Your task to perform on an android device: change text size in settings app Image 0: 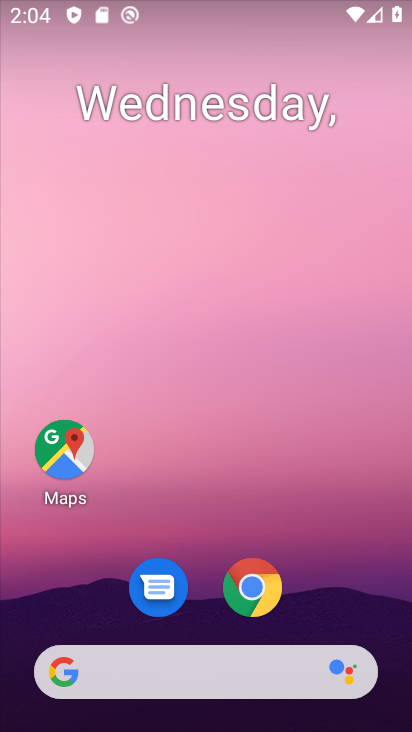
Step 0: drag from (242, 577) to (247, 10)
Your task to perform on an android device: change text size in settings app Image 1: 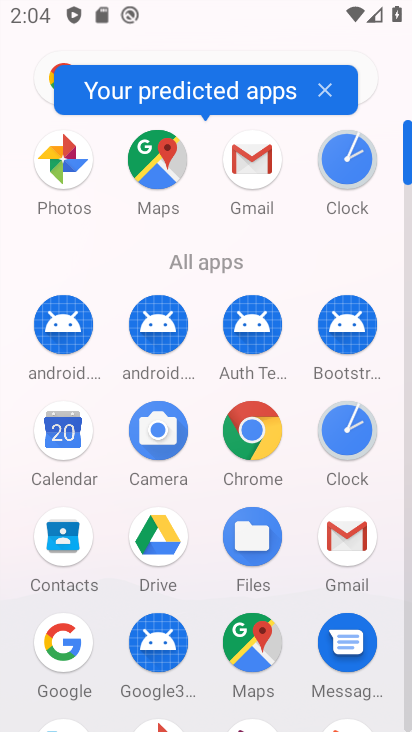
Step 1: drag from (268, 375) to (301, 22)
Your task to perform on an android device: change text size in settings app Image 2: 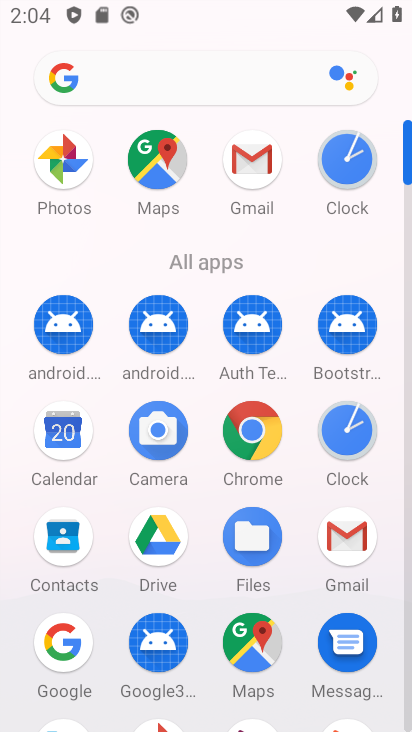
Step 2: drag from (283, 604) to (318, 60)
Your task to perform on an android device: change text size in settings app Image 3: 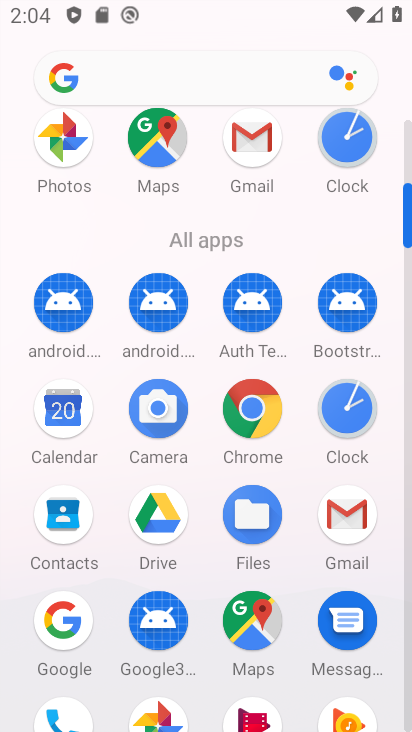
Step 3: drag from (302, 558) to (299, 5)
Your task to perform on an android device: change text size in settings app Image 4: 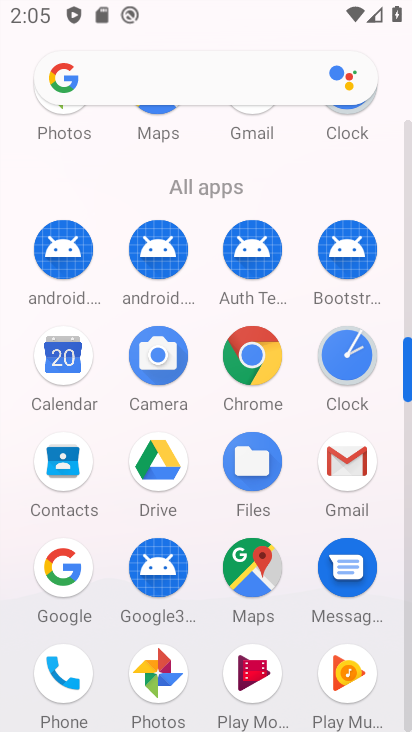
Step 4: drag from (304, 546) to (310, 32)
Your task to perform on an android device: change text size in settings app Image 5: 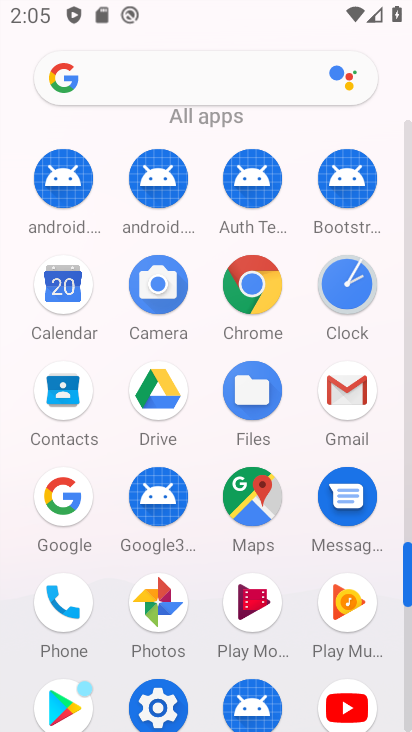
Step 5: click (158, 693)
Your task to perform on an android device: change text size in settings app Image 6: 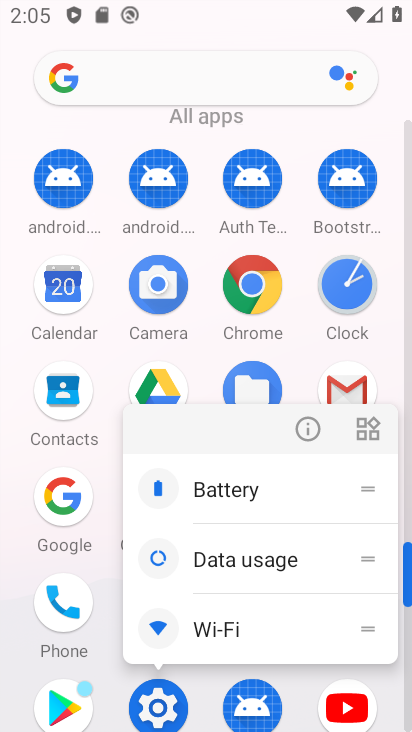
Step 6: click (158, 693)
Your task to perform on an android device: change text size in settings app Image 7: 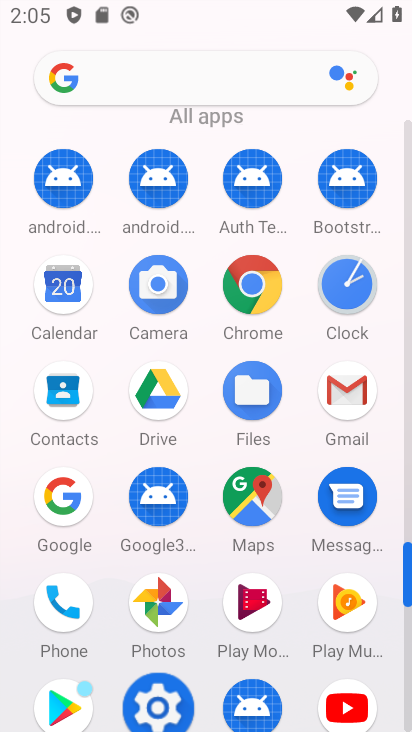
Step 7: click (158, 693)
Your task to perform on an android device: change text size in settings app Image 8: 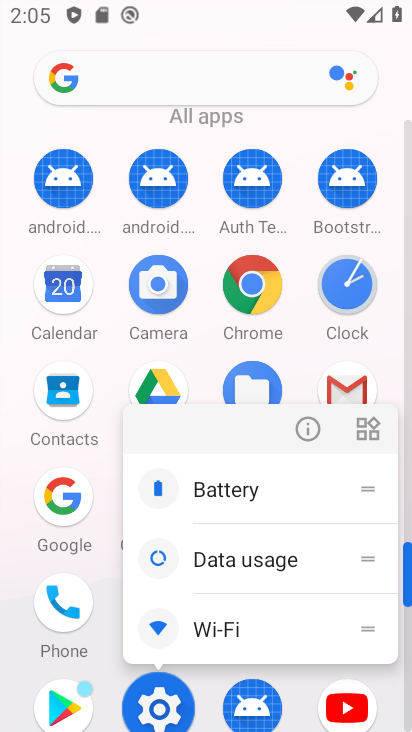
Step 8: click (158, 693)
Your task to perform on an android device: change text size in settings app Image 9: 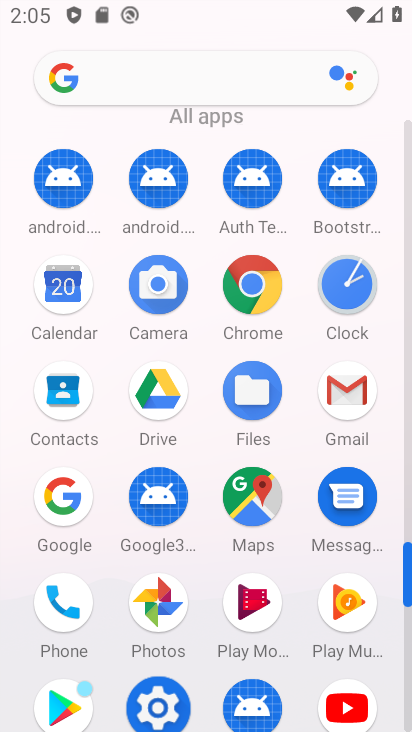
Step 9: click (158, 693)
Your task to perform on an android device: change text size in settings app Image 10: 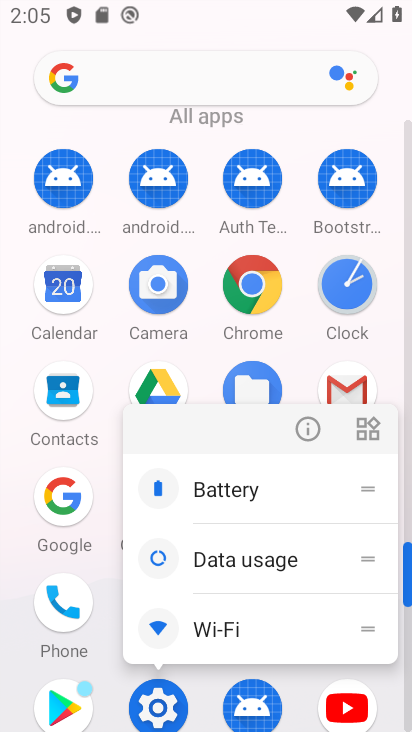
Step 10: click (158, 693)
Your task to perform on an android device: change text size in settings app Image 11: 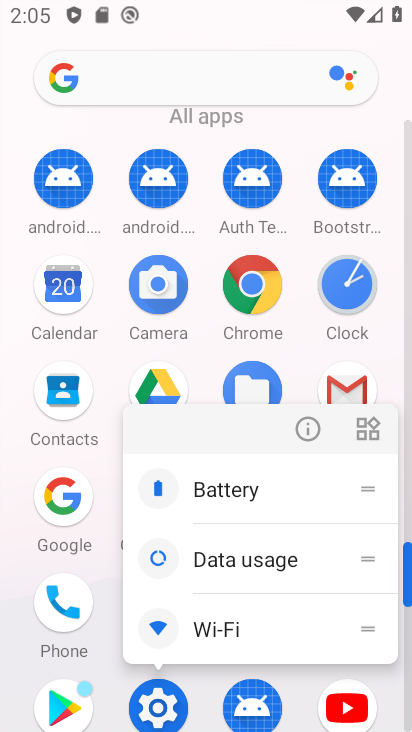
Step 11: click (158, 693)
Your task to perform on an android device: change text size in settings app Image 12: 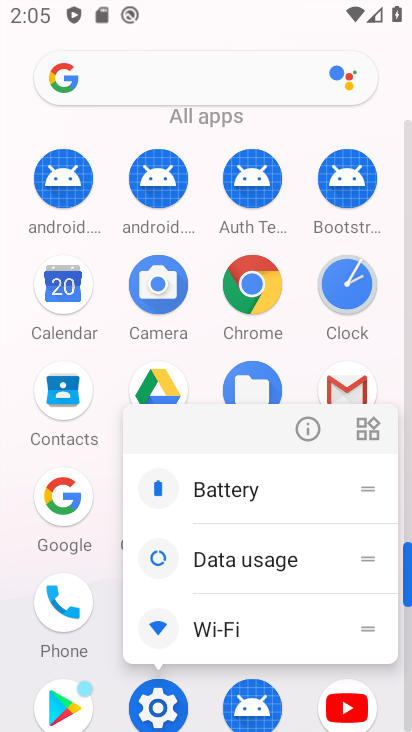
Step 12: click (158, 693)
Your task to perform on an android device: change text size in settings app Image 13: 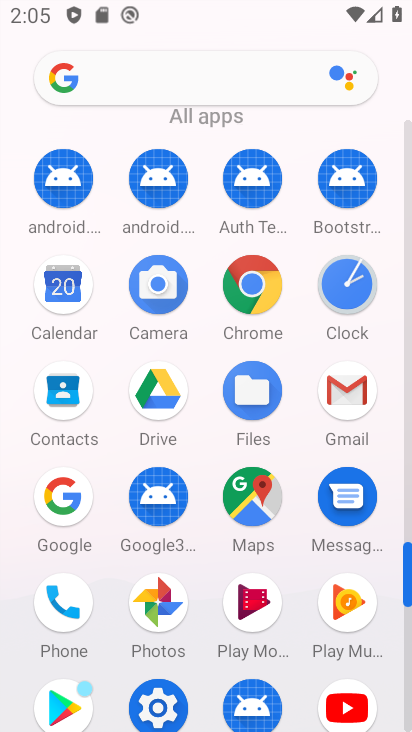
Step 13: click (158, 693)
Your task to perform on an android device: change text size in settings app Image 14: 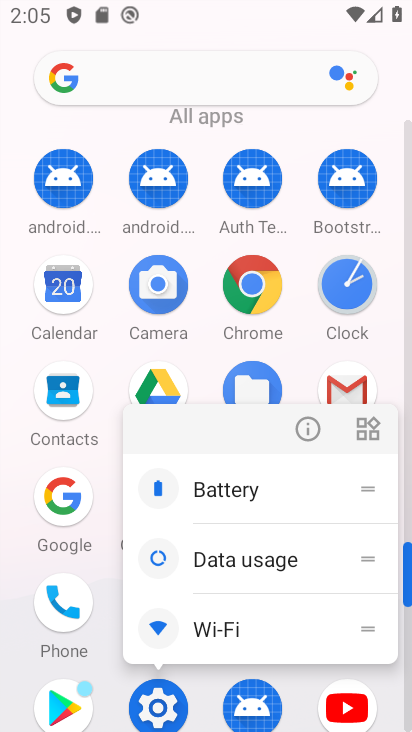
Step 14: click (158, 693)
Your task to perform on an android device: change text size in settings app Image 15: 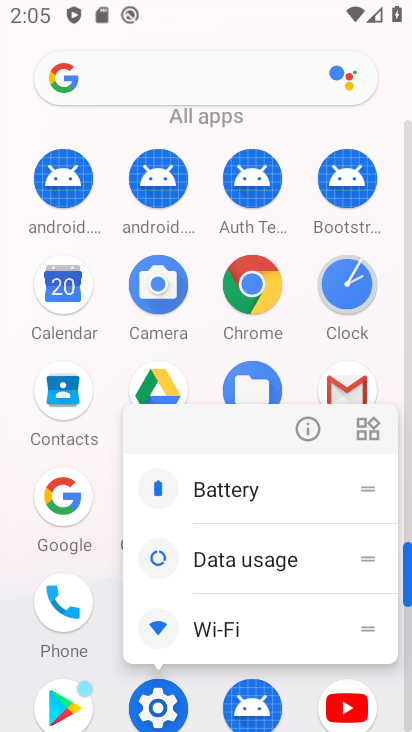
Step 15: click (158, 693)
Your task to perform on an android device: change text size in settings app Image 16: 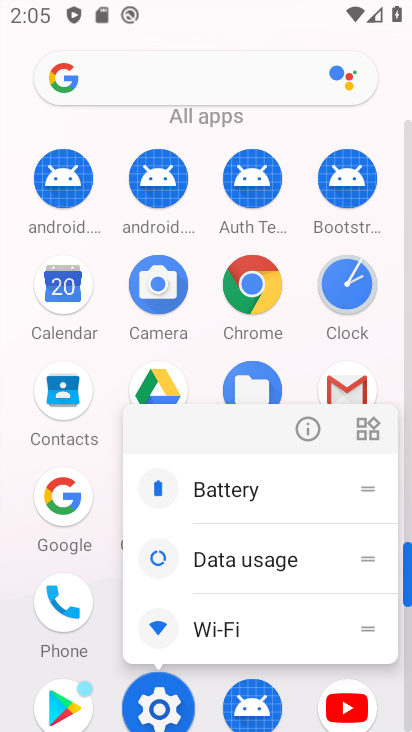
Step 16: click (158, 693)
Your task to perform on an android device: change text size in settings app Image 17: 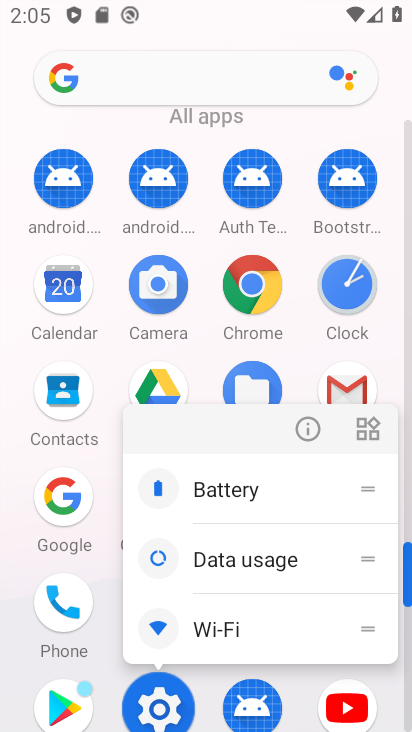
Step 17: click (158, 693)
Your task to perform on an android device: change text size in settings app Image 18: 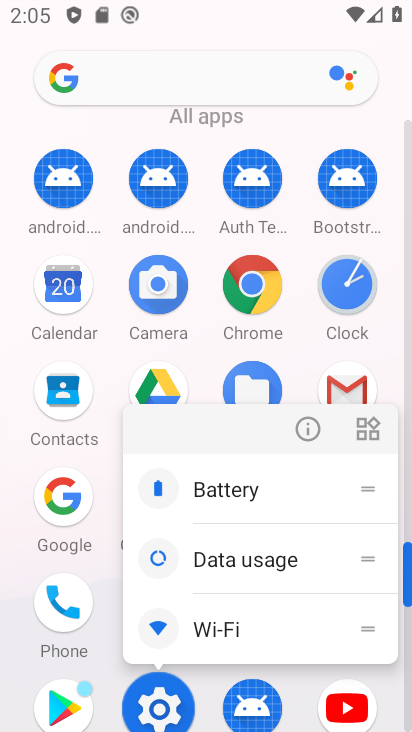
Step 18: click (158, 693)
Your task to perform on an android device: change text size in settings app Image 19: 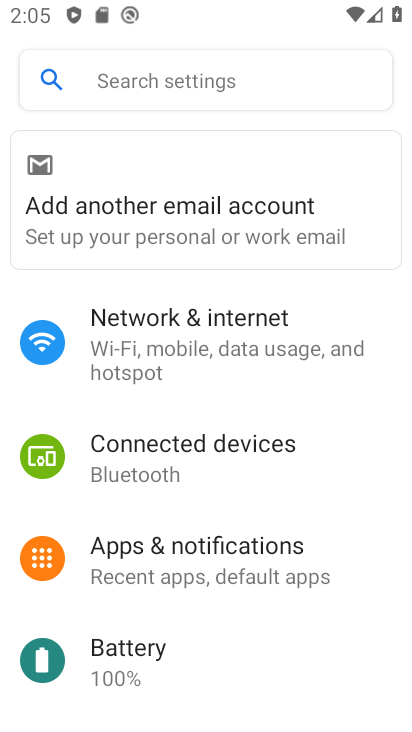
Step 19: drag from (303, 653) to (302, 10)
Your task to perform on an android device: change text size in settings app Image 20: 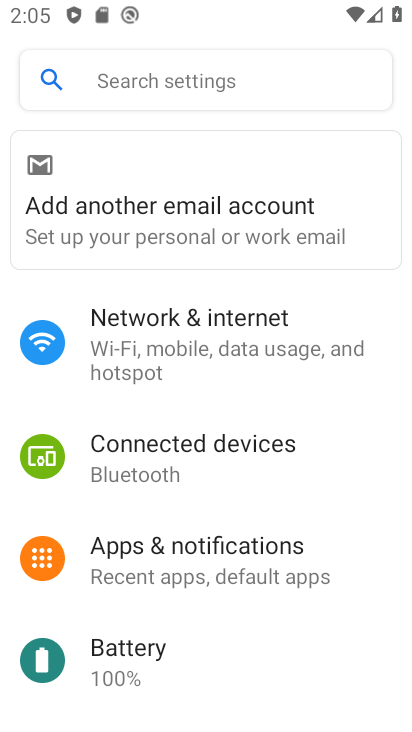
Step 20: drag from (313, 678) to (317, 4)
Your task to perform on an android device: change text size in settings app Image 21: 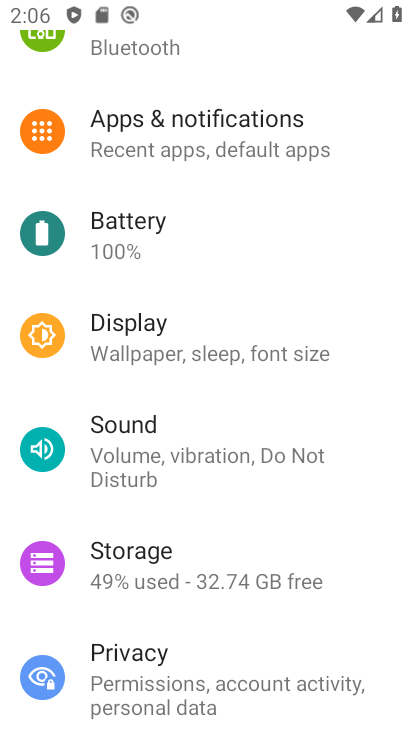
Step 21: click (282, 343)
Your task to perform on an android device: change text size in settings app Image 22: 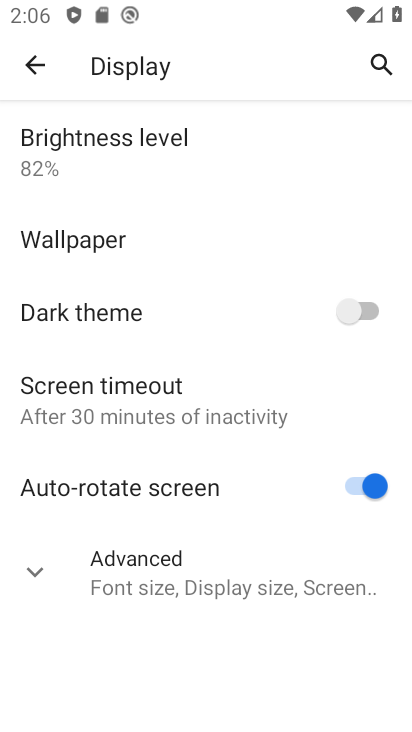
Step 22: click (205, 585)
Your task to perform on an android device: change text size in settings app Image 23: 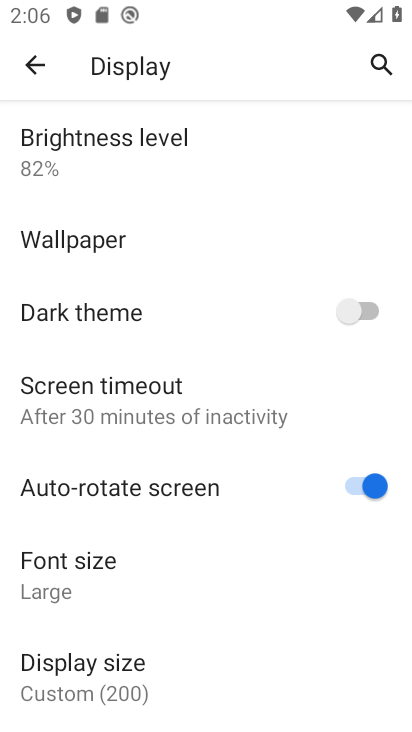
Step 23: click (129, 573)
Your task to perform on an android device: change text size in settings app Image 24: 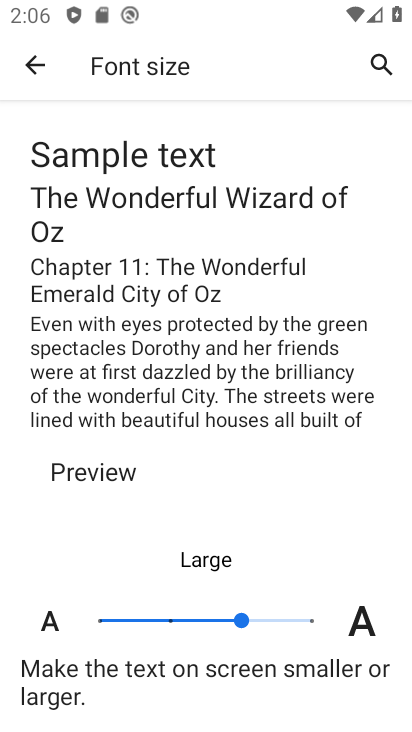
Step 24: click (160, 621)
Your task to perform on an android device: change text size in settings app Image 25: 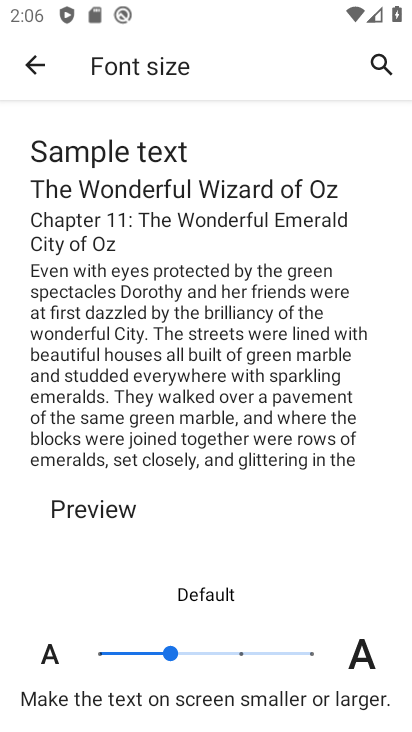
Step 25: task complete